Your task to perform on an android device: turn notification dots off Image 0: 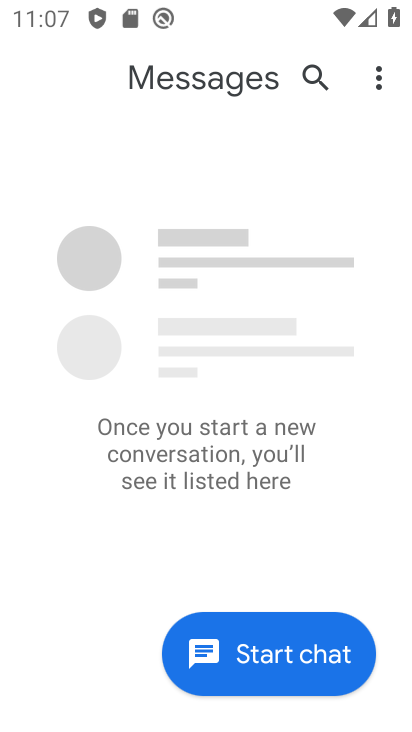
Step 0: press home button
Your task to perform on an android device: turn notification dots off Image 1: 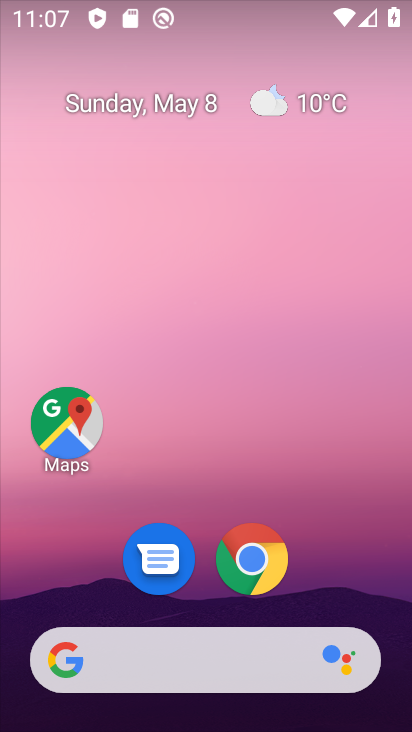
Step 1: drag from (203, 598) to (301, 40)
Your task to perform on an android device: turn notification dots off Image 2: 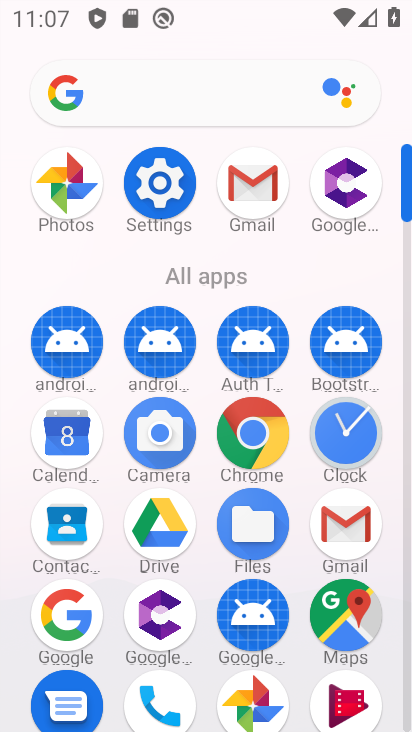
Step 2: click (161, 211)
Your task to perform on an android device: turn notification dots off Image 3: 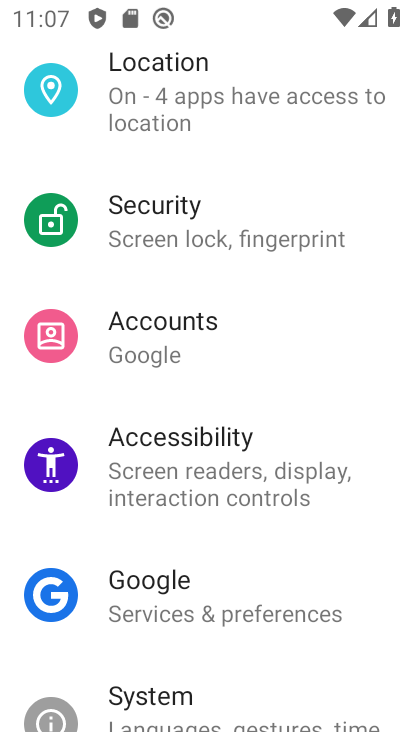
Step 3: drag from (209, 164) to (207, 620)
Your task to perform on an android device: turn notification dots off Image 4: 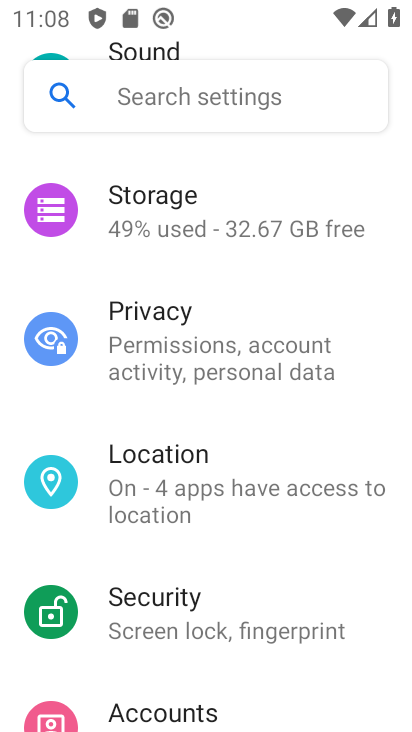
Step 4: drag from (138, 236) to (143, 542)
Your task to perform on an android device: turn notification dots off Image 5: 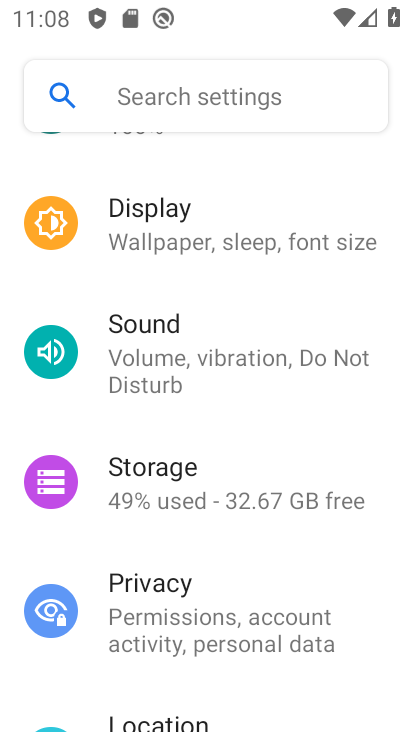
Step 5: drag from (170, 278) to (184, 558)
Your task to perform on an android device: turn notification dots off Image 6: 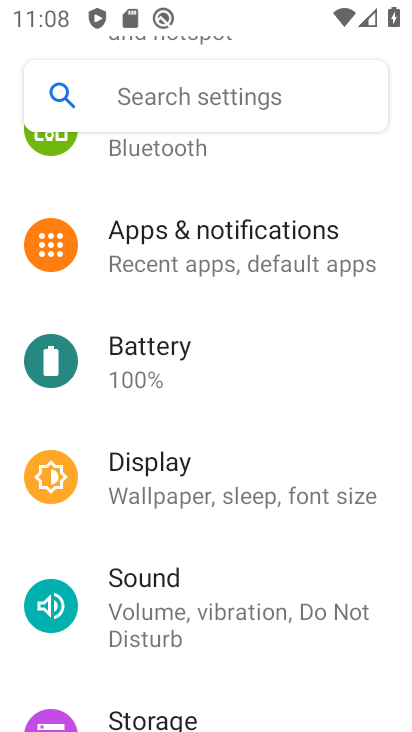
Step 6: click (231, 245)
Your task to perform on an android device: turn notification dots off Image 7: 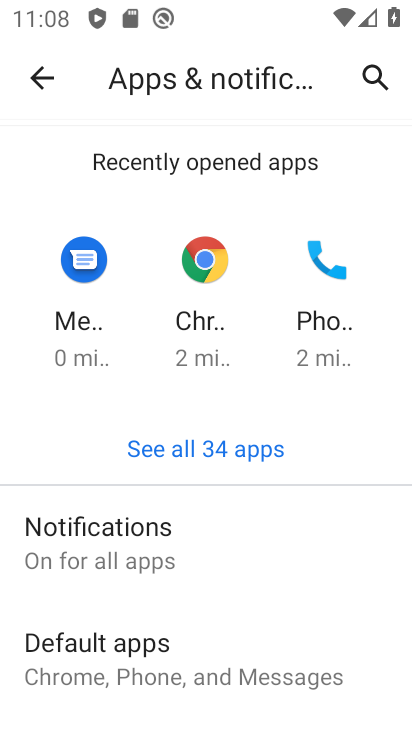
Step 7: click (139, 550)
Your task to perform on an android device: turn notification dots off Image 8: 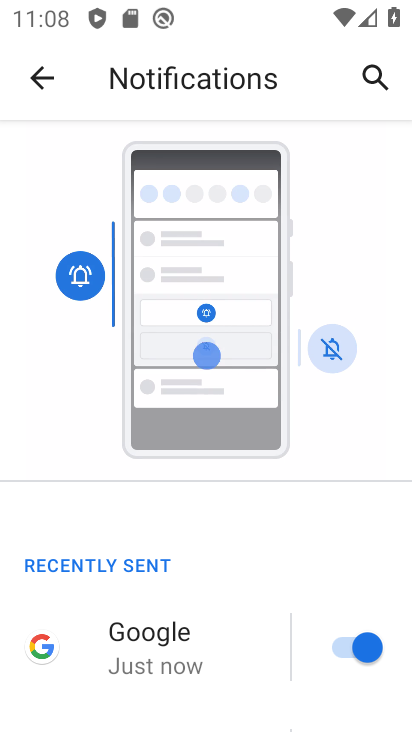
Step 8: drag from (162, 579) to (217, 338)
Your task to perform on an android device: turn notification dots off Image 9: 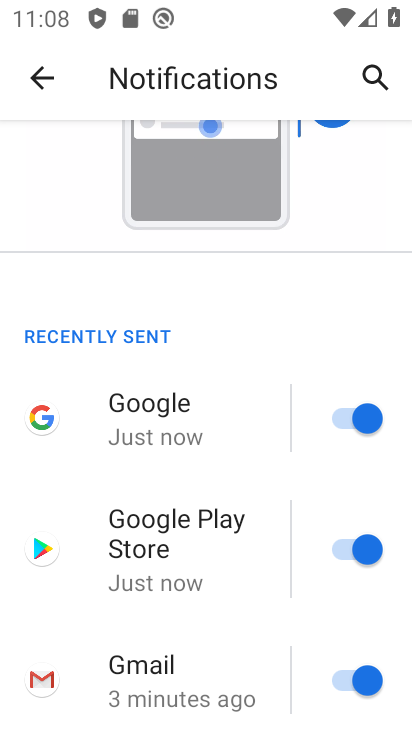
Step 9: drag from (183, 596) to (236, 237)
Your task to perform on an android device: turn notification dots off Image 10: 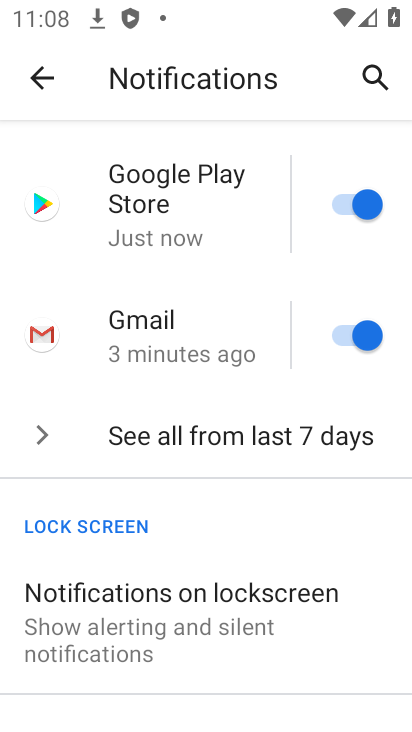
Step 10: drag from (182, 610) to (217, 171)
Your task to perform on an android device: turn notification dots off Image 11: 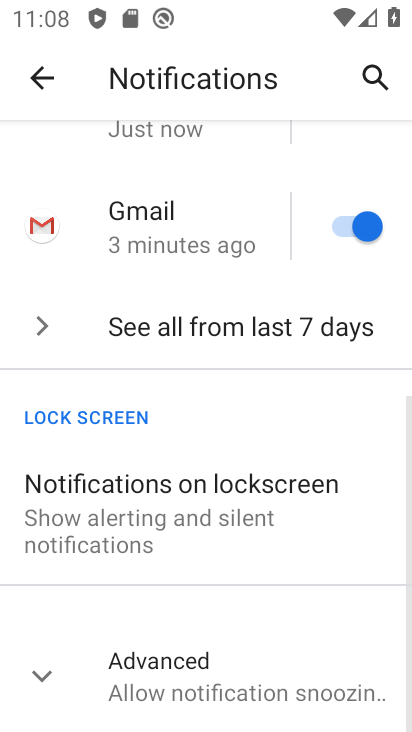
Step 11: click (212, 670)
Your task to perform on an android device: turn notification dots off Image 12: 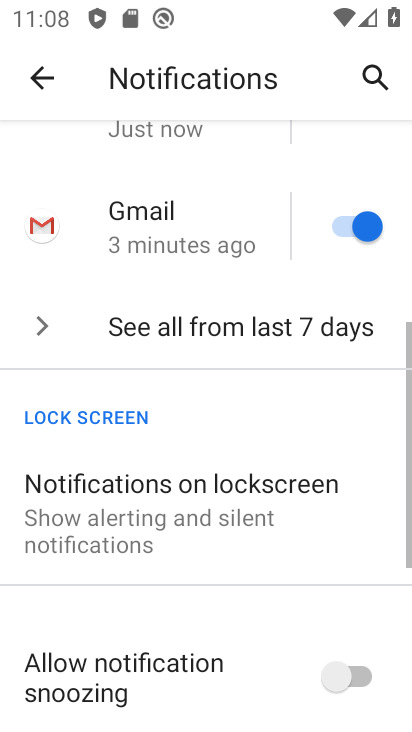
Step 12: drag from (206, 643) to (259, 234)
Your task to perform on an android device: turn notification dots off Image 13: 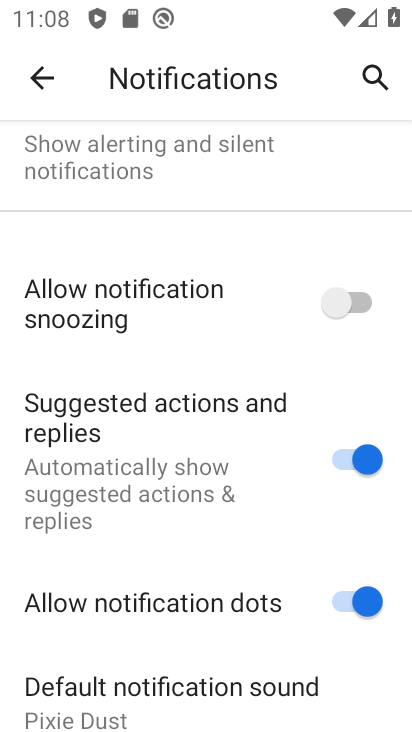
Step 13: drag from (262, 624) to (280, 464)
Your task to perform on an android device: turn notification dots off Image 14: 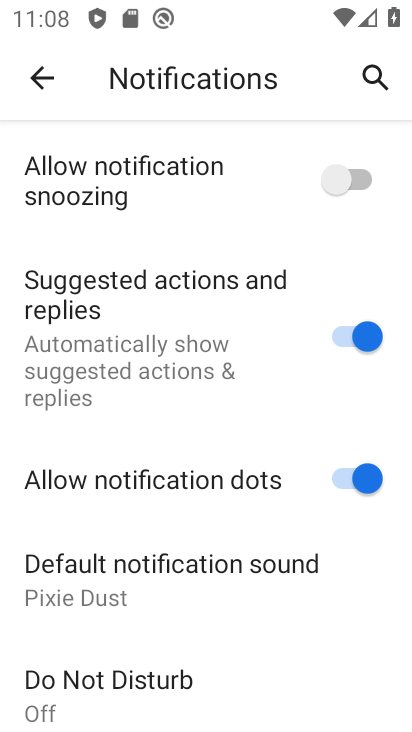
Step 14: click (346, 479)
Your task to perform on an android device: turn notification dots off Image 15: 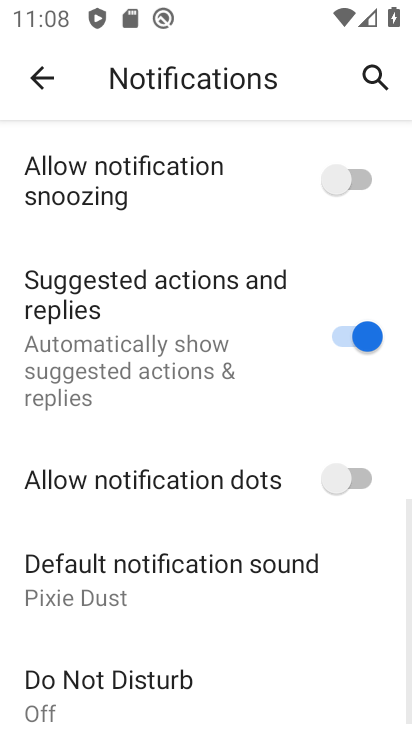
Step 15: task complete